Your task to perform on an android device: toggle wifi Image 0: 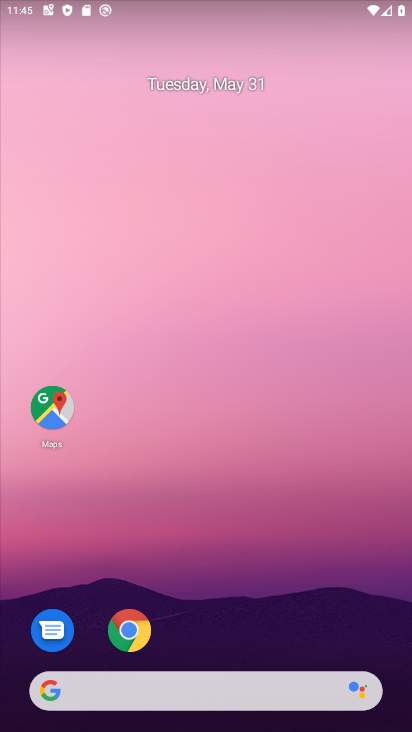
Step 0: drag from (222, 7) to (192, 668)
Your task to perform on an android device: toggle wifi Image 1: 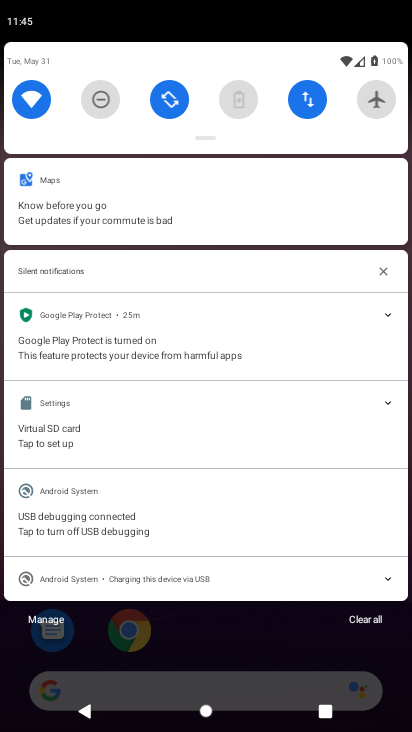
Step 1: click (34, 98)
Your task to perform on an android device: toggle wifi Image 2: 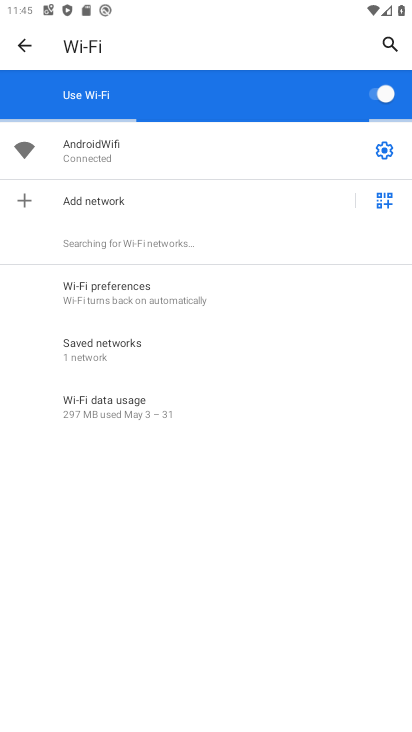
Step 2: click (374, 88)
Your task to perform on an android device: toggle wifi Image 3: 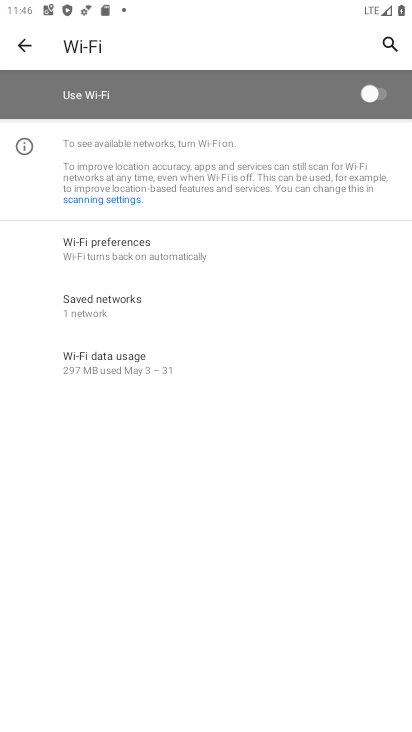
Step 3: task complete